Your task to perform on an android device: Open a new incognito tab in the chrome app Image 0: 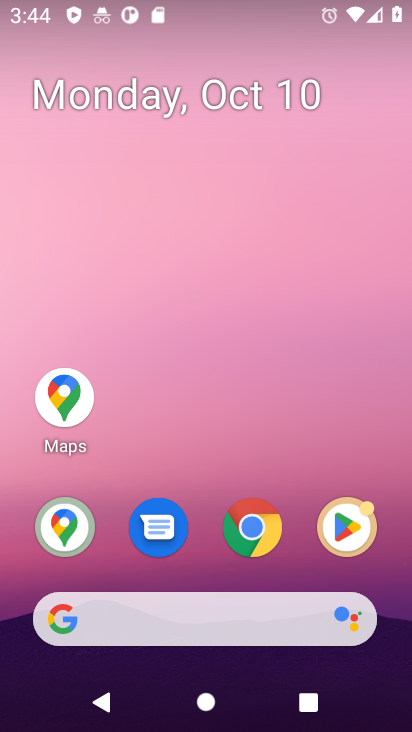
Step 0: click (252, 527)
Your task to perform on an android device: Open a new incognito tab in the chrome app Image 1: 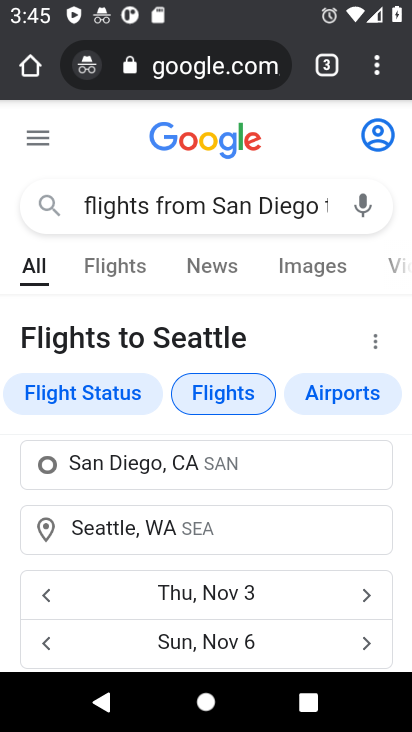
Step 1: click (379, 71)
Your task to perform on an android device: Open a new incognito tab in the chrome app Image 2: 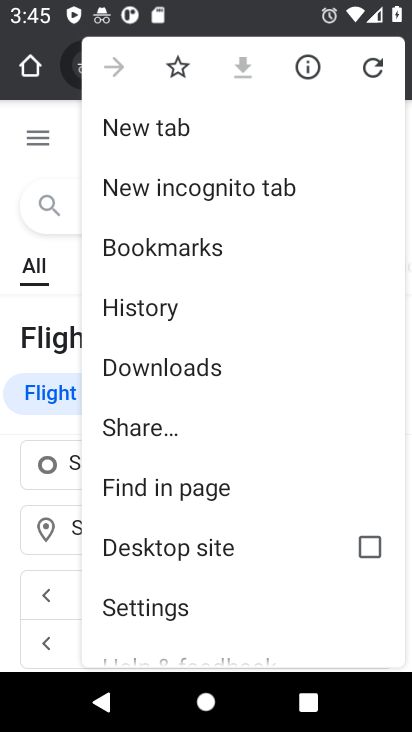
Step 2: click (288, 188)
Your task to perform on an android device: Open a new incognito tab in the chrome app Image 3: 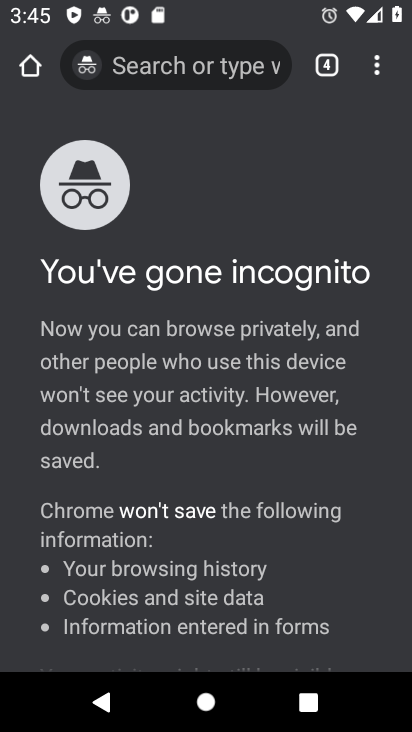
Step 3: task complete